Your task to perform on an android device: Go to internet settings Image 0: 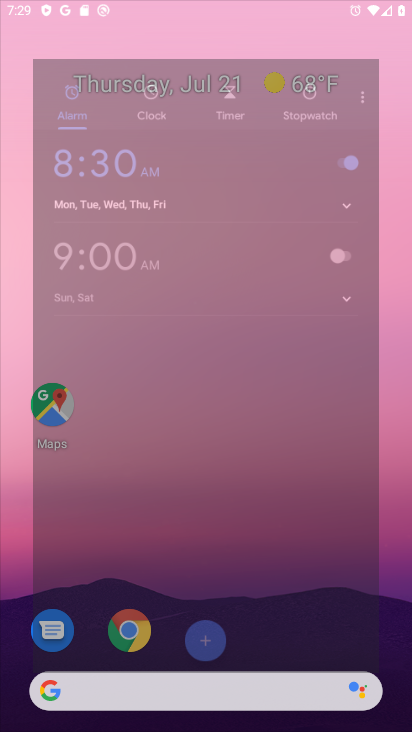
Step 0: drag from (292, 304) to (236, 2)
Your task to perform on an android device: Go to internet settings Image 1: 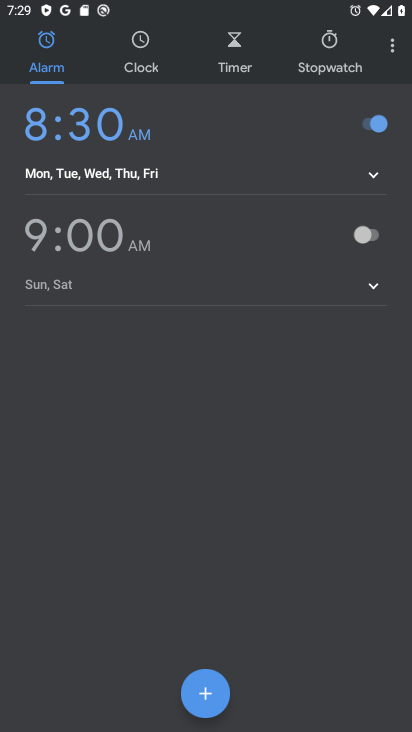
Step 1: press home button
Your task to perform on an android device: Go to internet settings Image 2: 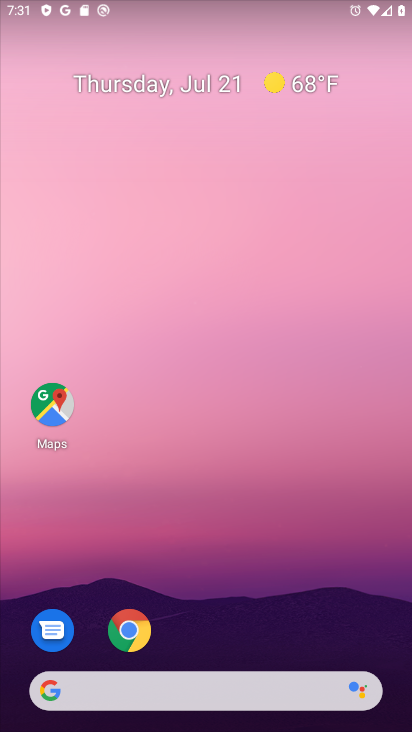
Step 2: drag from (262, 555) to (253, 0)
Your task to perform on an android device: Go to internet settings Image 3: 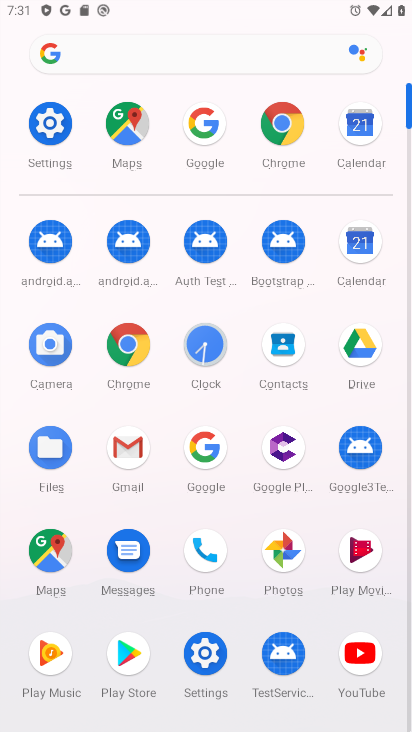
Step 3: click (56, 140)
Your task to perform on an android device: Go to internet settings Image 4: 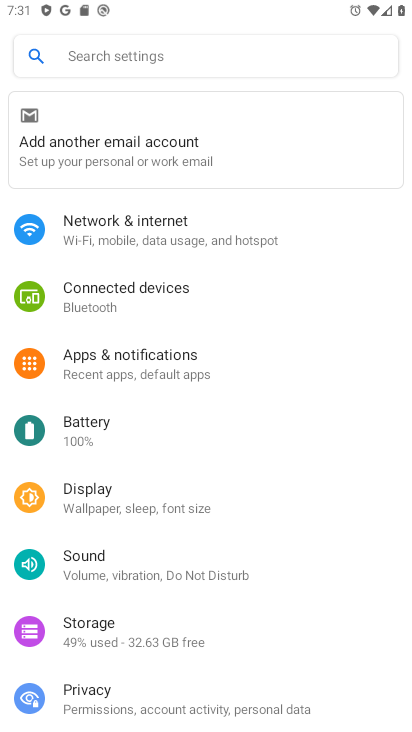
Step 4: click (119, 230)
Your task to perform on an android device: Go to internet settings Image 5: 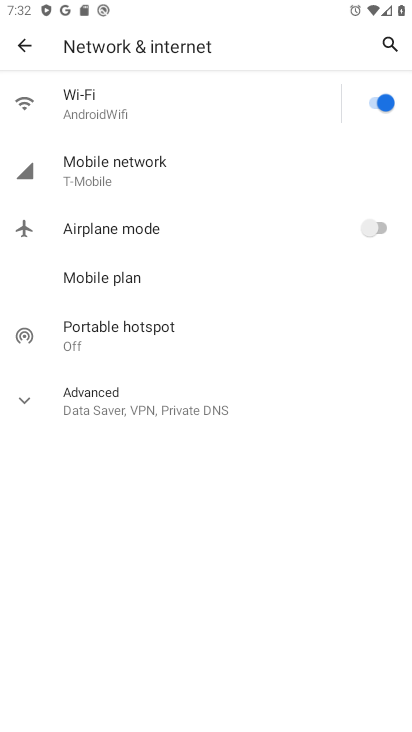
Step 5: task complete